Your task to perform on an android device: Open the Play Movies app and select the watchlist tab. Image 0: 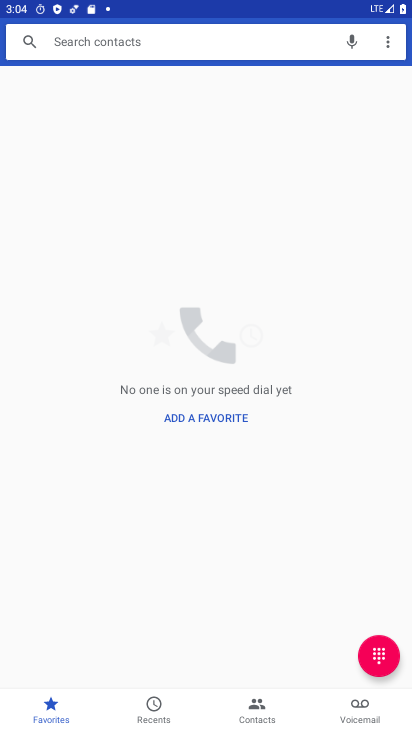
Step 0: press home button
Your task to perform on an android device: Open the Play Movies app and select the watchlist tab. Image 1: 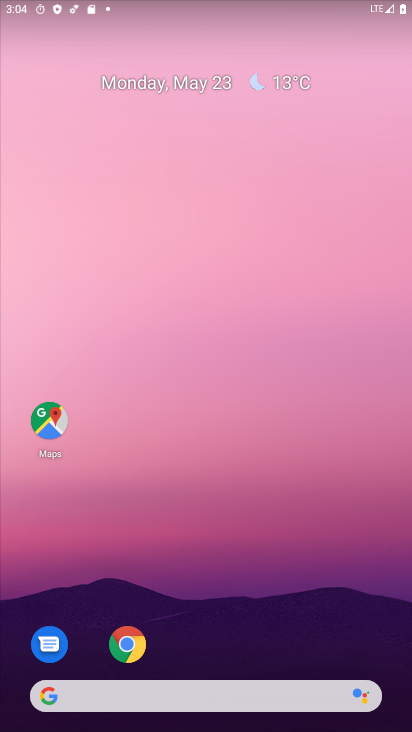
Step 1: drag from (212, 664) to (139, 39)
Your task to perform on an android device: Open the Play Movies app and select the watchlist tab. Image 2: 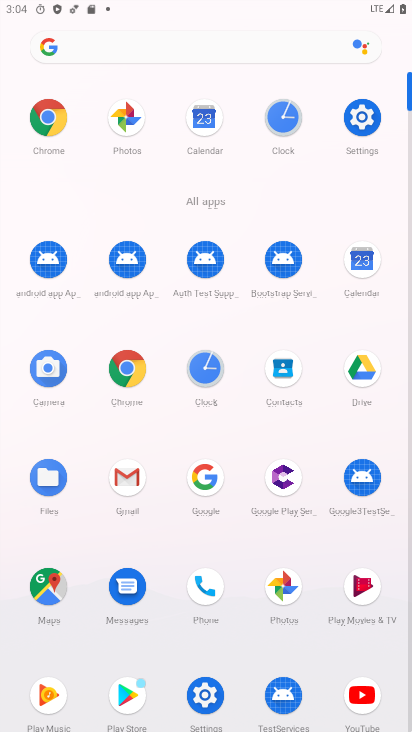
Step 2: click (362, 582)
Your task to perform on an android device: Open the Play Movies app and select the watchlist tab. Image 3: 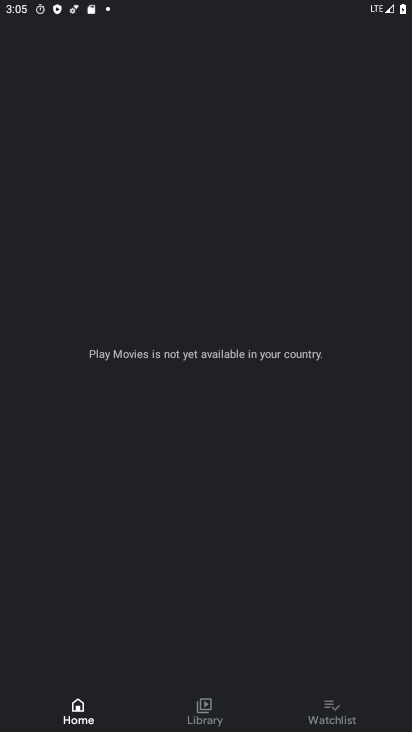
Step 3: click (327, 691)
Your task to perform on an android device: Open the Play Movies app and select the watchlist tab. Image 4: 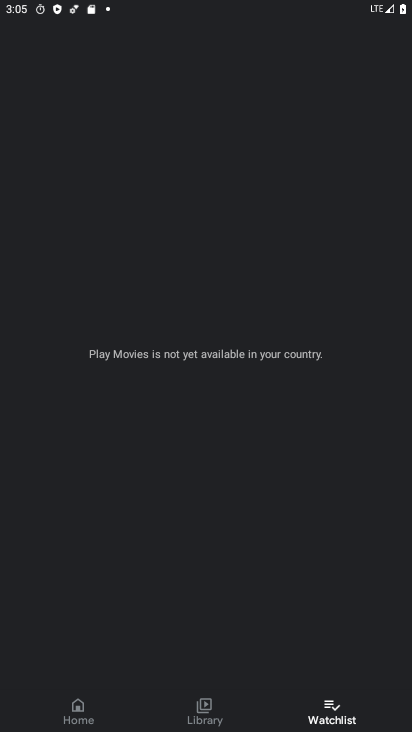
Step 4: task complete